Your task to perform on an android device: Go to settings Image 0: 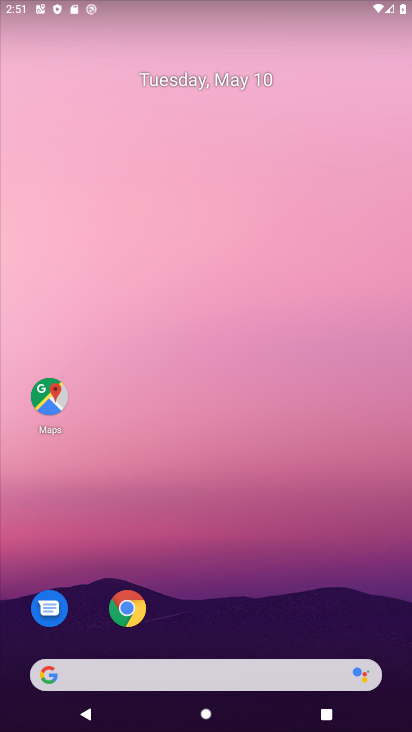
Step 0: drag from (205, 622) to (324, 51)
Your task to perform on an android device: Go to settings Image 1: 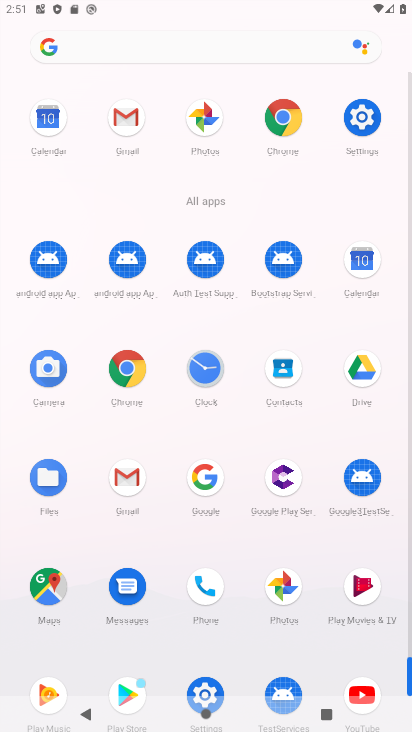
Step 1: click (371, 118)
Your task to perform on an android device: Go to settings Image 2: 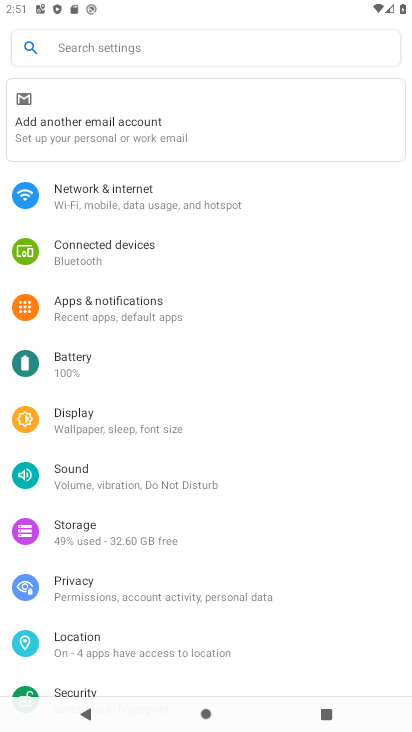
Step 2: task complete